Your task to perform on an android device: Open display settings Image 0: 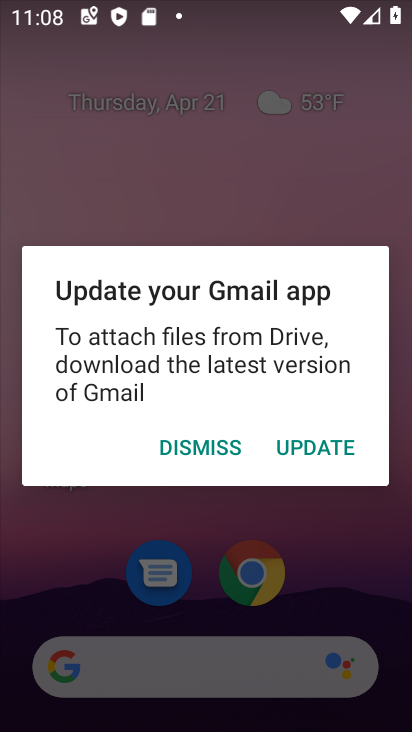
Step 0: press home button
Your task to perform on an android device: Open display settings Image 1: 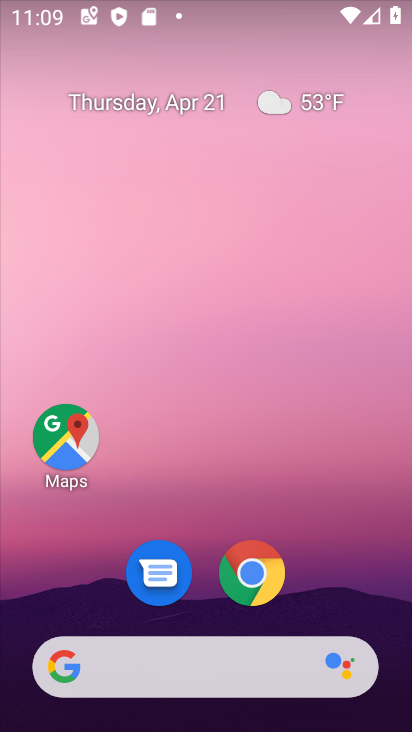
Step 1: drag from (328, 581) to (326, 85)
Your task to perform on an android device: Open display settings Image 2: 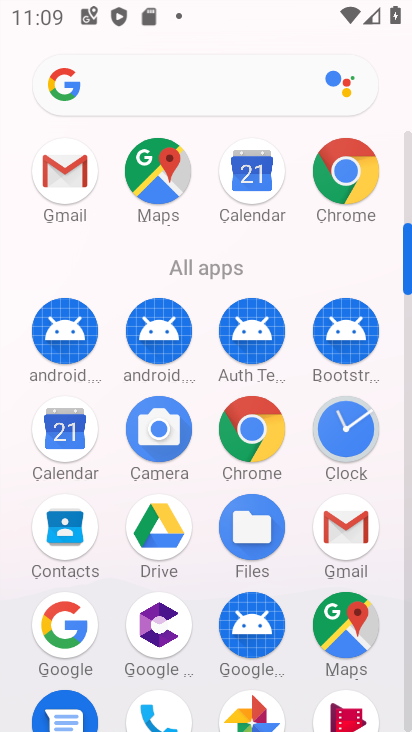
Step 2: drag from (294, 273) to (279, 36)
Your task to perform on an android device: Open display settings Image 3: 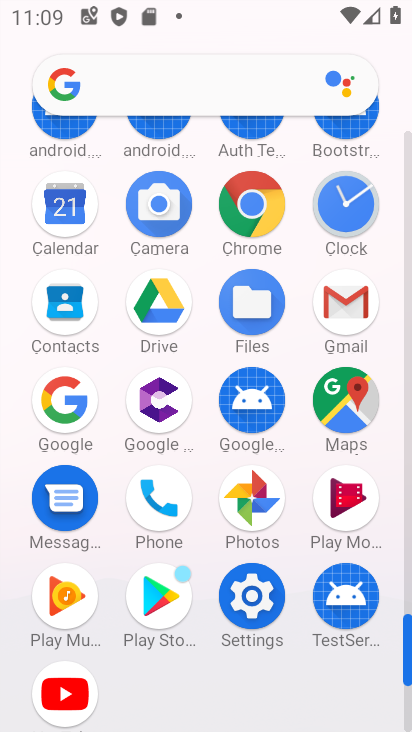
Step 3: click (256, 594)
Your task to perform on an android device: Open display settings Image 4: 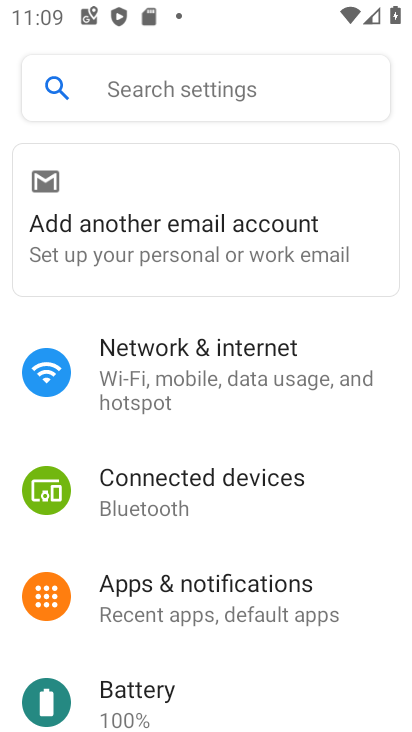
Step 4: drag from (372, 680) to (380, 309)
Your task to perform on an android device: Open display settings Image 5: 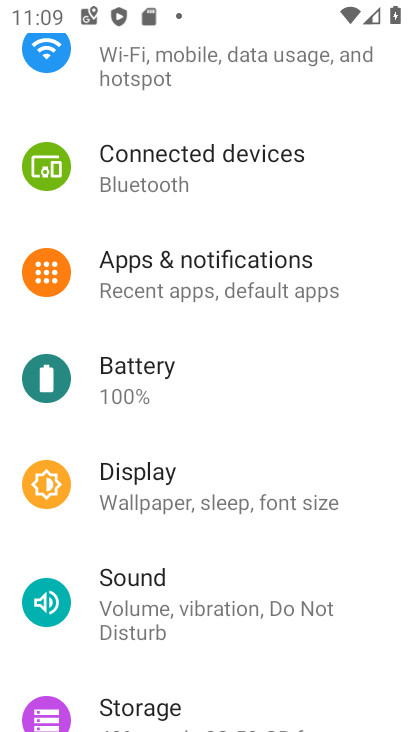
Step 5: click (145, 484)
Your task to perform on an android device: Open display settings Image 6: 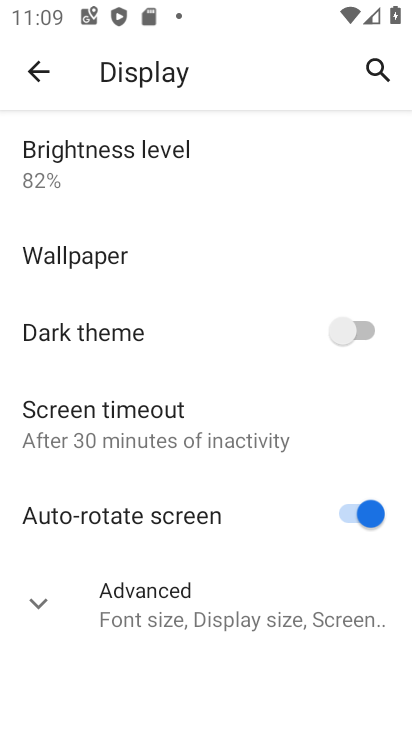
Step 6: task complete